Your task to perform on an android device: Open calendar and show me the first week of next month Image 0: 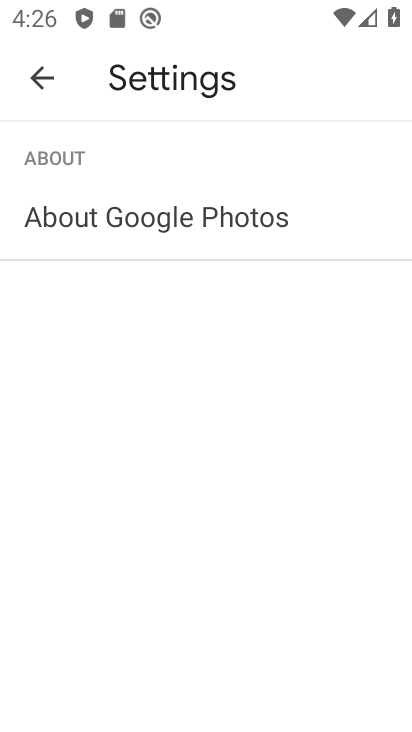
Step 0: press home button
Your task to perform on an android device: Open calendar and show me the first week of next month Image 1: 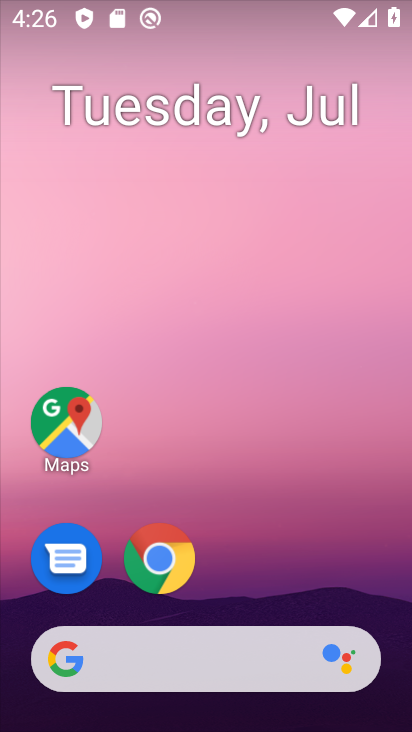
Step 1: drag from (288, 641) to (235, 210)
Your task to perform on an android device: Open calendar and show me the first week of next month Image 2: 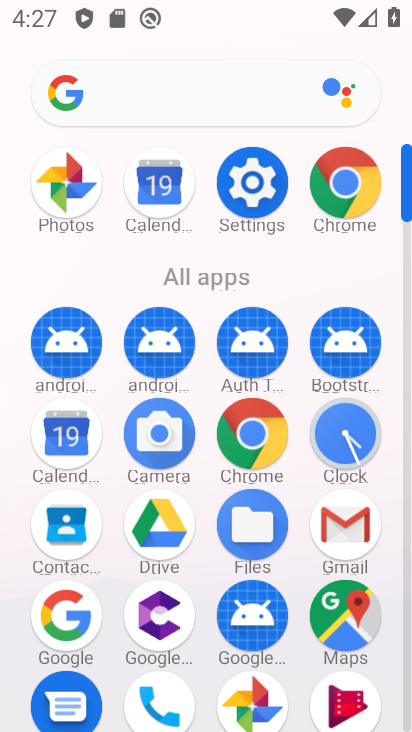
Step 2: drag from (209, 516) to (169, 172)
Your task to perform on an android device: Open calendar and show me the first week of next month Image 3: 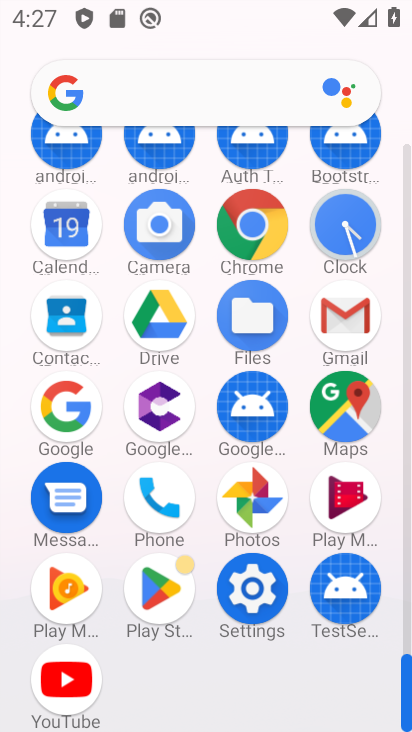
Step 3: click (70, 250)
Your task to perform on an android device: Open calendar and show me the first week of next month Image 4: 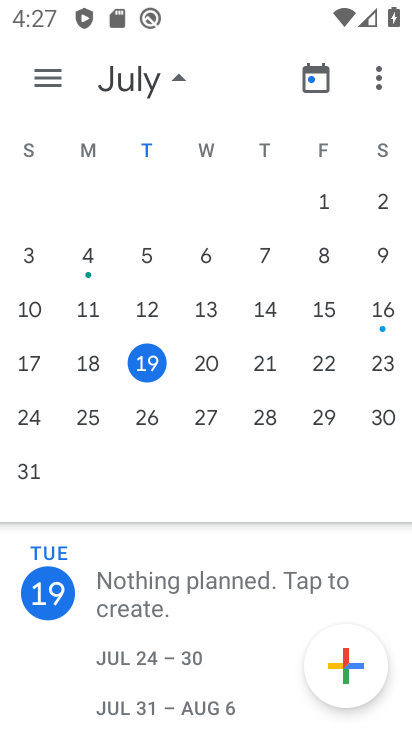
Step 4: drag from (291, 383) to (2, 312)
Your task to perform on an android device: Open calendar and show me the first week of next month Image 5: 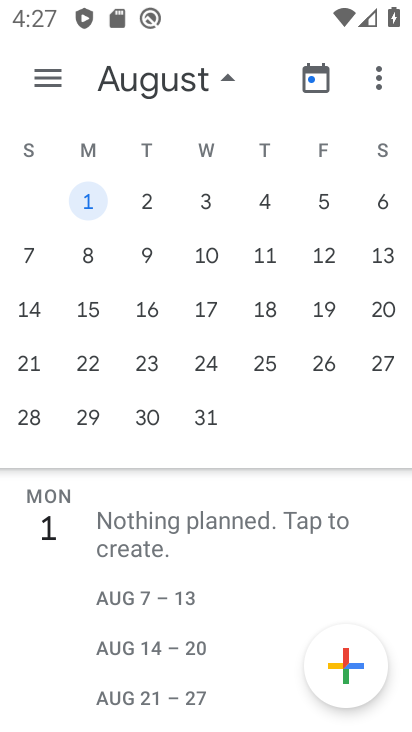
Step 5: click (87, 206)
Your task to perform on an android device: Open calendar and show me the first week of next month Image 6: 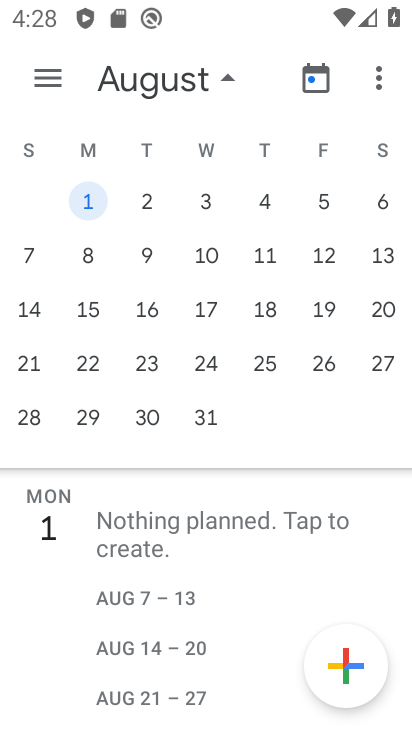
Step 6: task complete